Your task to perform on an android device: turn off location Image 0: 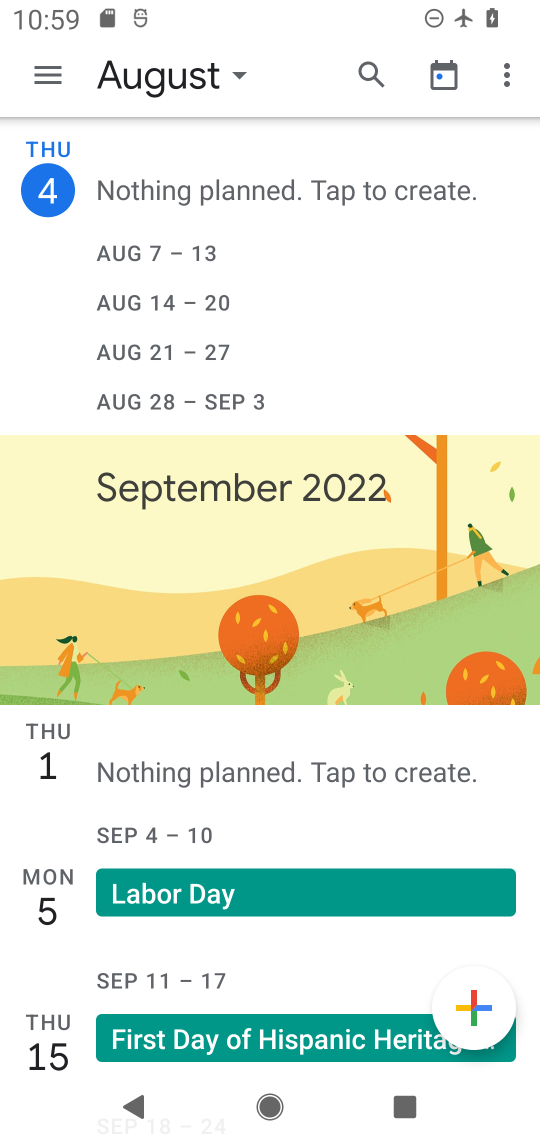
Step 0: press home button
Your task to perform on an android device: turn off location Image 1: 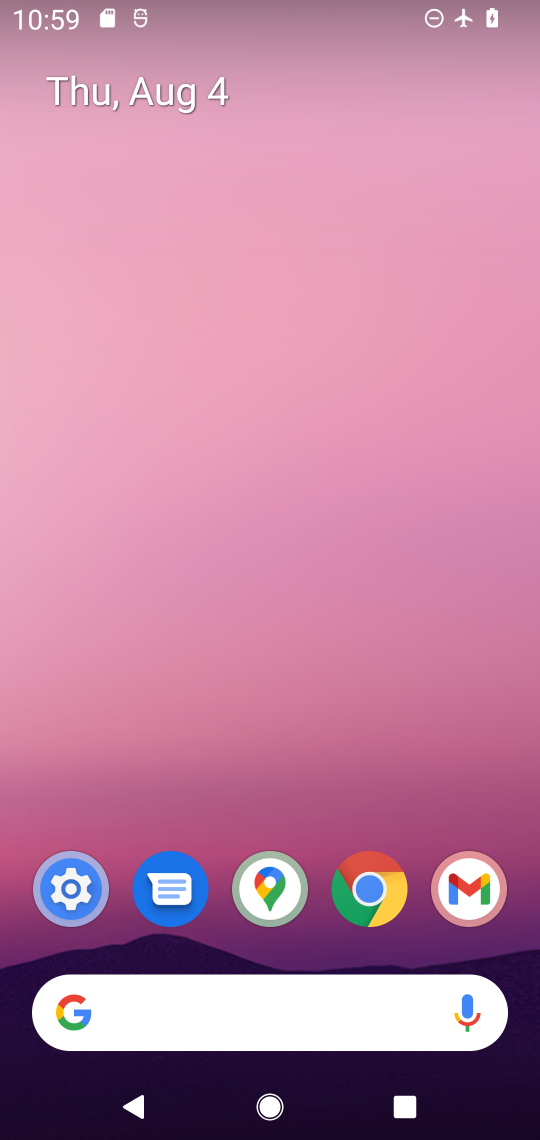
Step 1: drag from (325, 799) to (308, 224)
Your task to perform on an android device: turn off location Image 2: 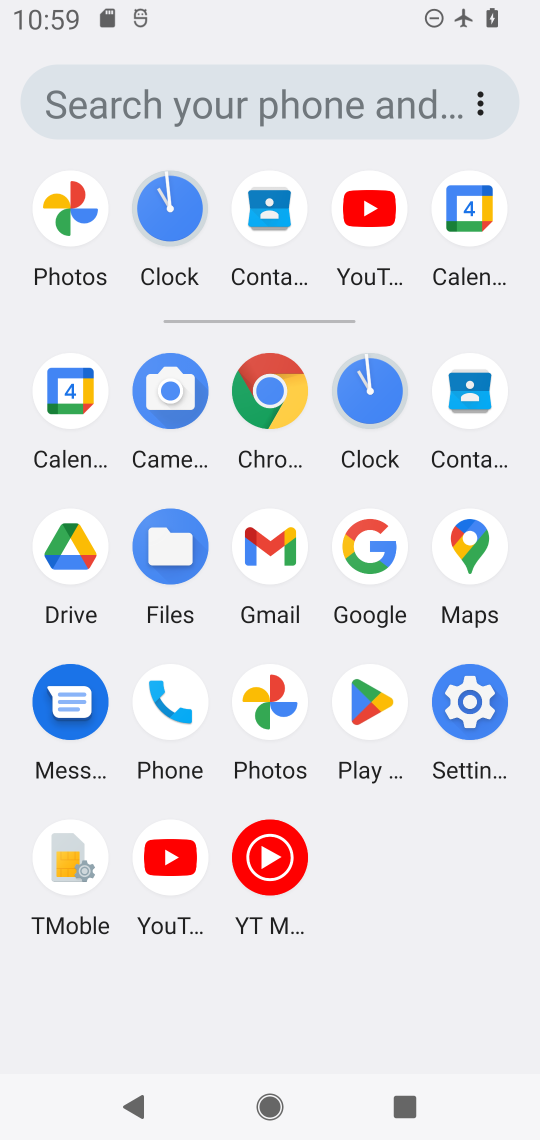
Step 2: click (474, 694)
Your task to perform on an android device: turn off location Image 3: 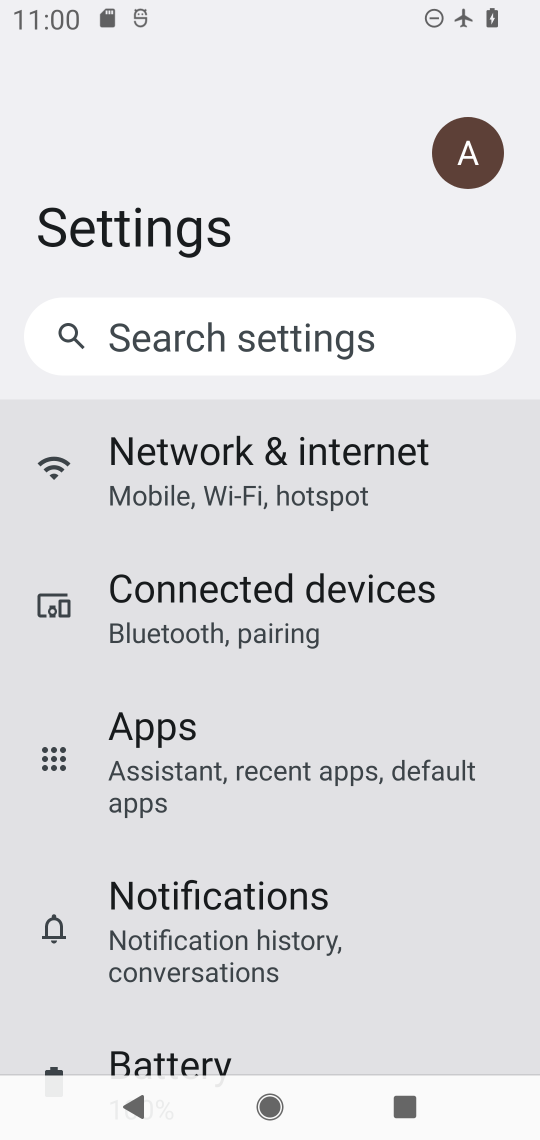
Step 3: drag from (431, 949) to (444, 717)
Your task to perform on an android device: turn off location Image 4: 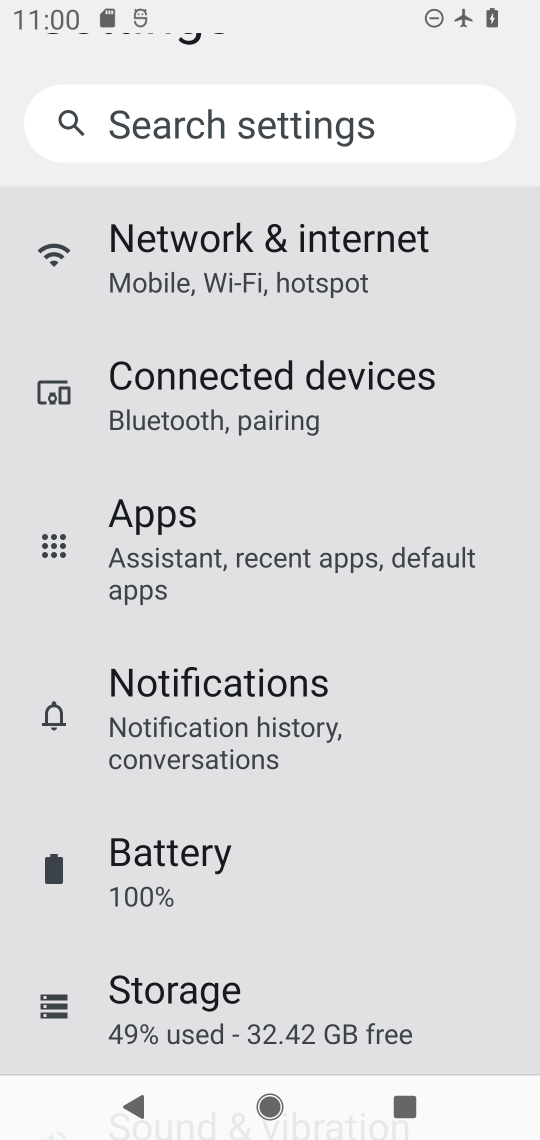
Step 4: drag from (409, 901) to (419, 657)
Your task to perform on an android device: turn off location Image 5: 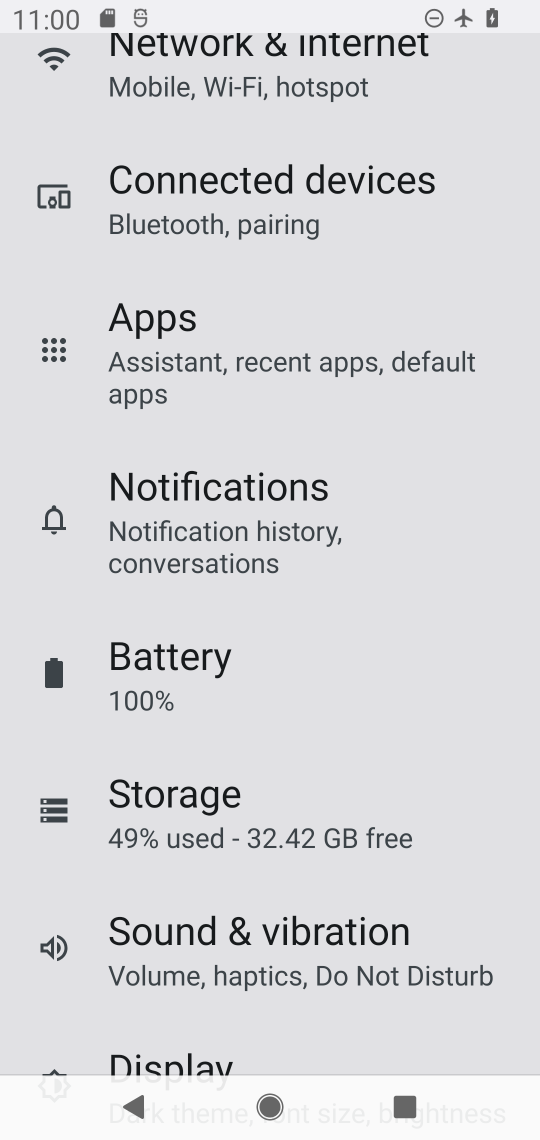
Step 5: drag from (462, 991) to (446, 753)
Your task to perform on an android device: turn off location Image 6: 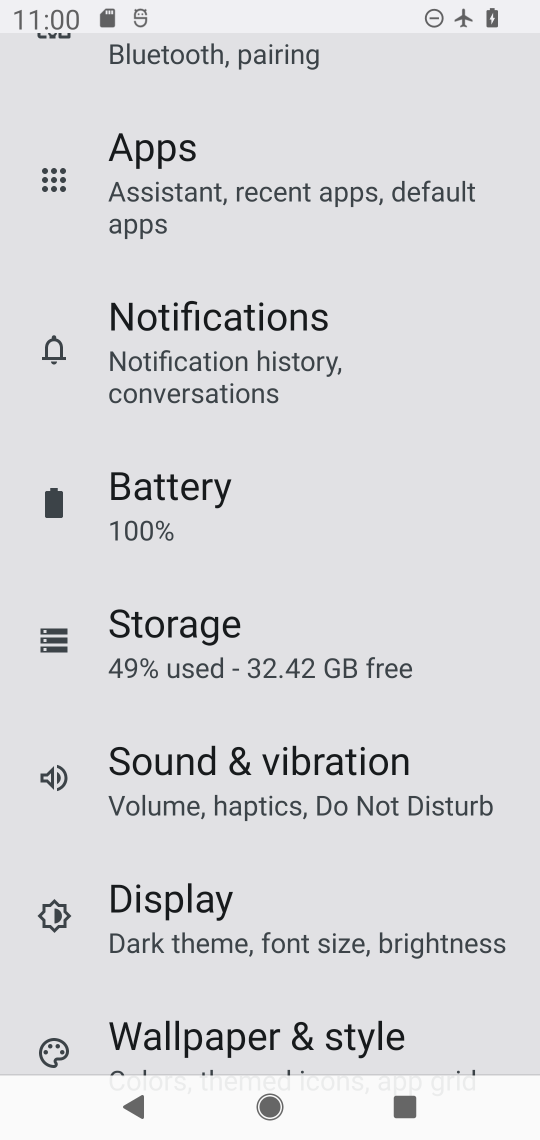
Step 6: drag from (425, 982) to (436, 752)
Your task to perform on an android device: turn off location Image 7: 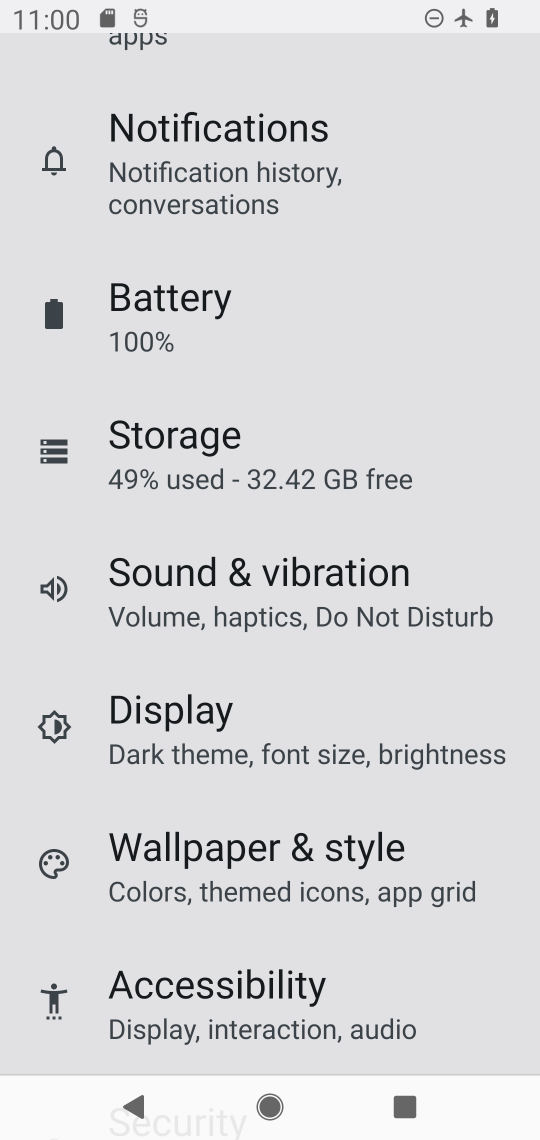
Step 7: drag from (439, 992) to (446, 770)
Your task to perform on an android device: turn off location Image 8: 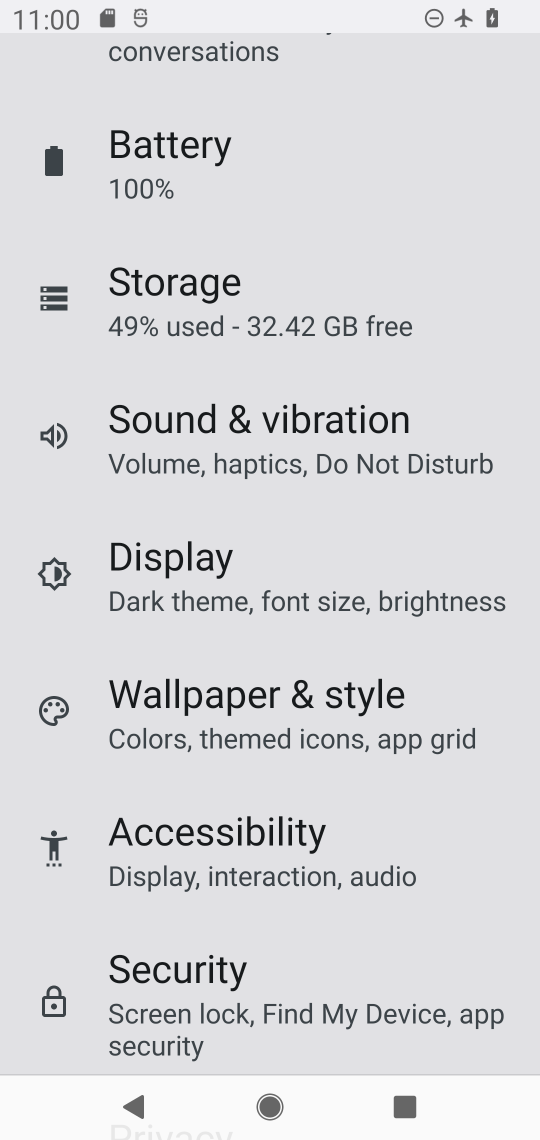
Step 8: drag from (445, 1013) to (451, 757)
Your task to perform on an android device: turn off location Image 9: 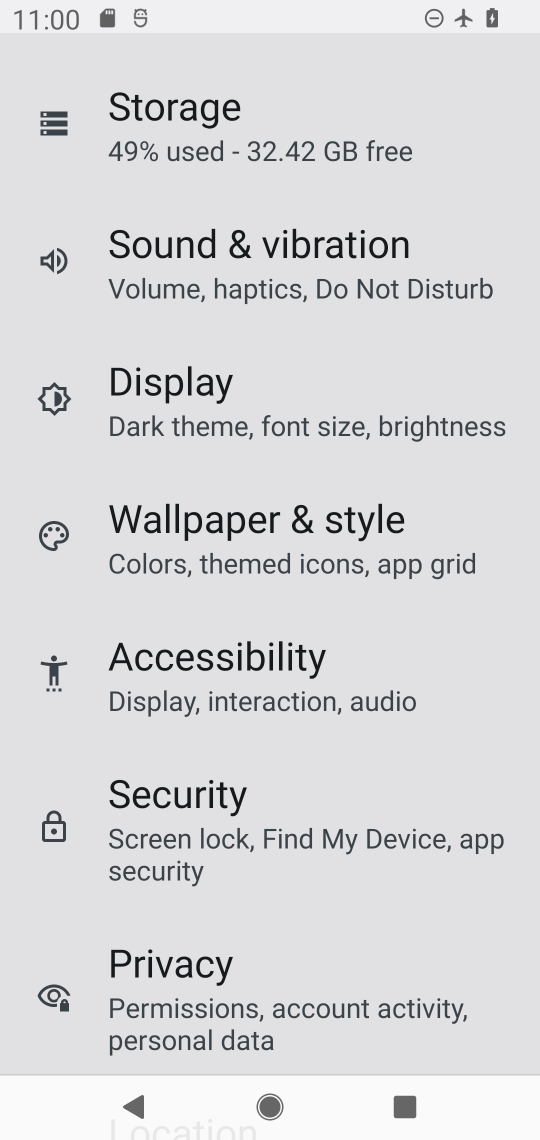
Step 9: drag from (432, 945) to (449, 722)
Your task to perform on an android device: turn off location Image 10: 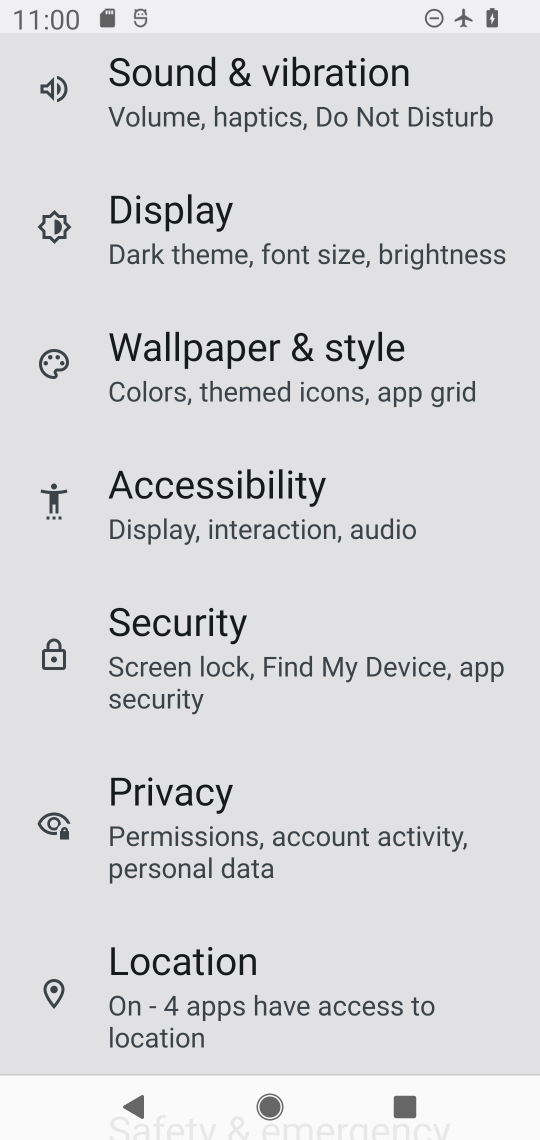
Step 10: drag from (449, 874) to (459, 530)
Your task to perform on an android device: turn off location Image 11: 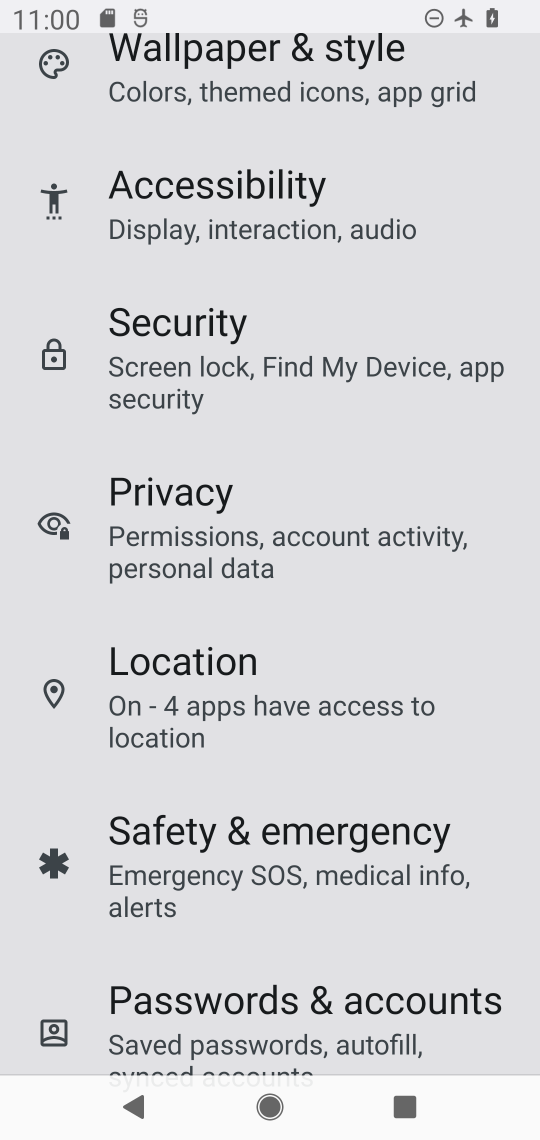
Step 11: drag from (438, 781) to (444, 541)
Your task to perform on an android device: turn off location Image 12: 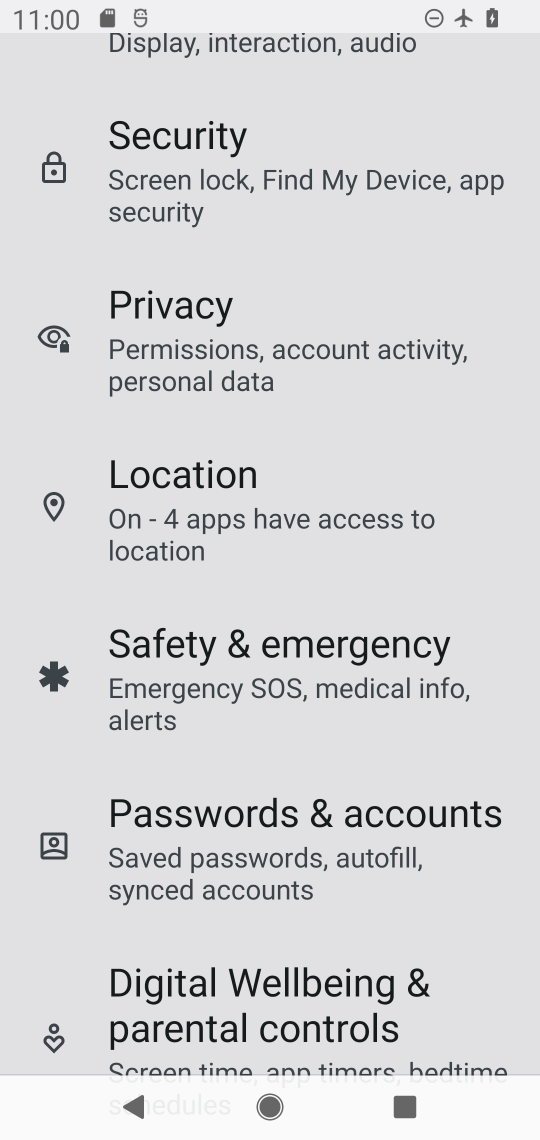
Step 12: click (346, 509)
Your task to perform on an android device: turn off location Image 13: 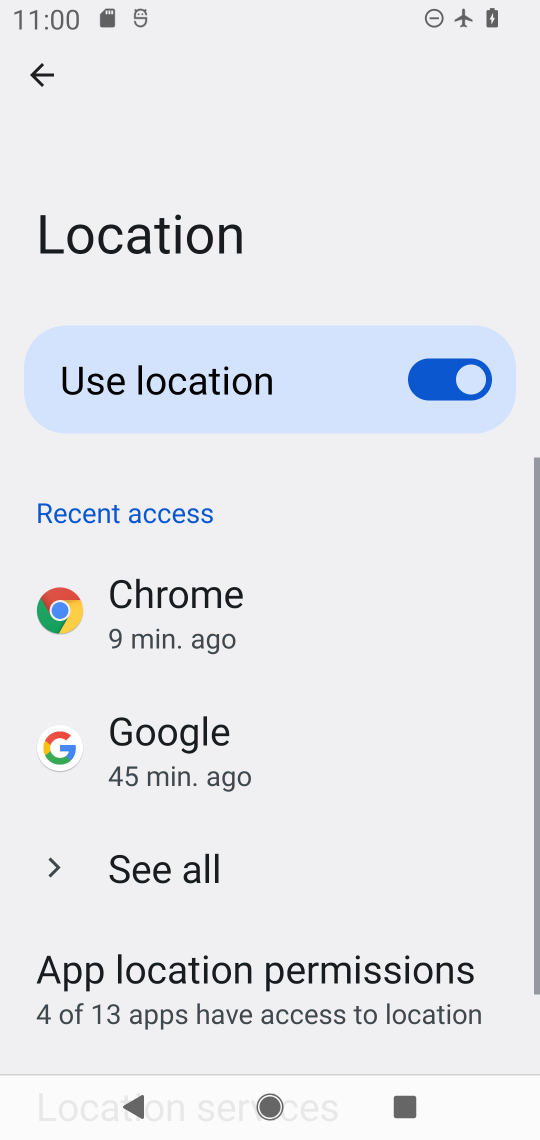
Step 13: drag from (362, 842) to (362, 612)
Your task to perform on an android device: turn off location Image 14: 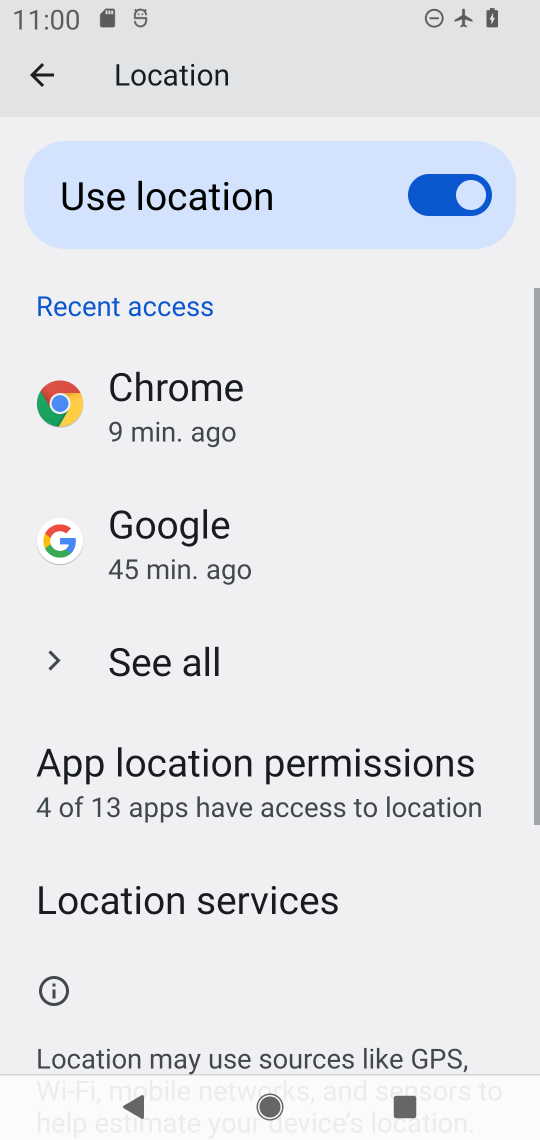
Step 14: drag from (419, 912) to (405, 574)
Your task to perform on an android device: turn off location Image 15: 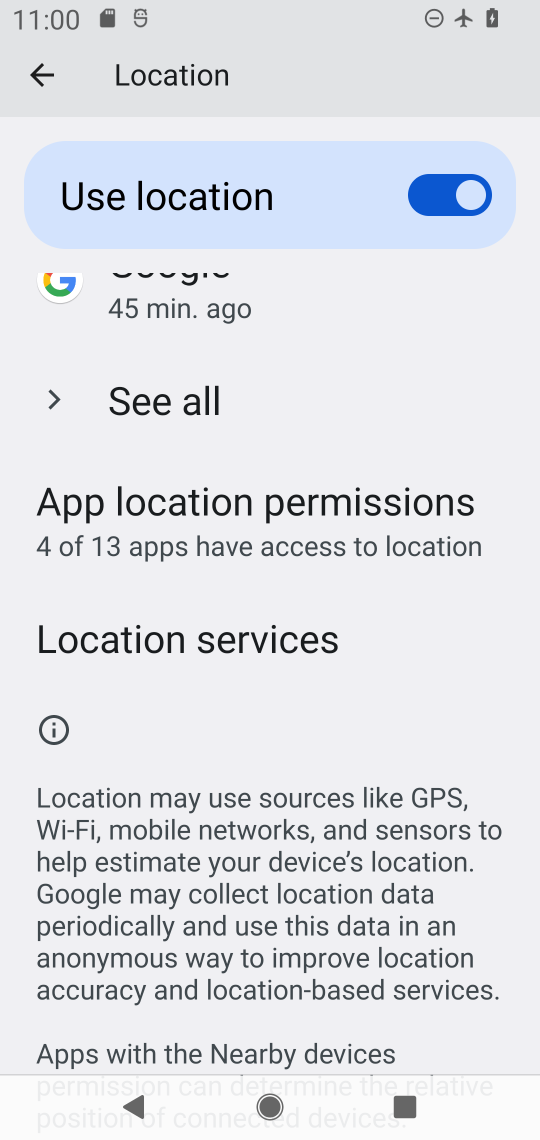
Step 15: drag from (405, 788) to (409, 528)
Your task to perform on an android device: turn off location Image 16: 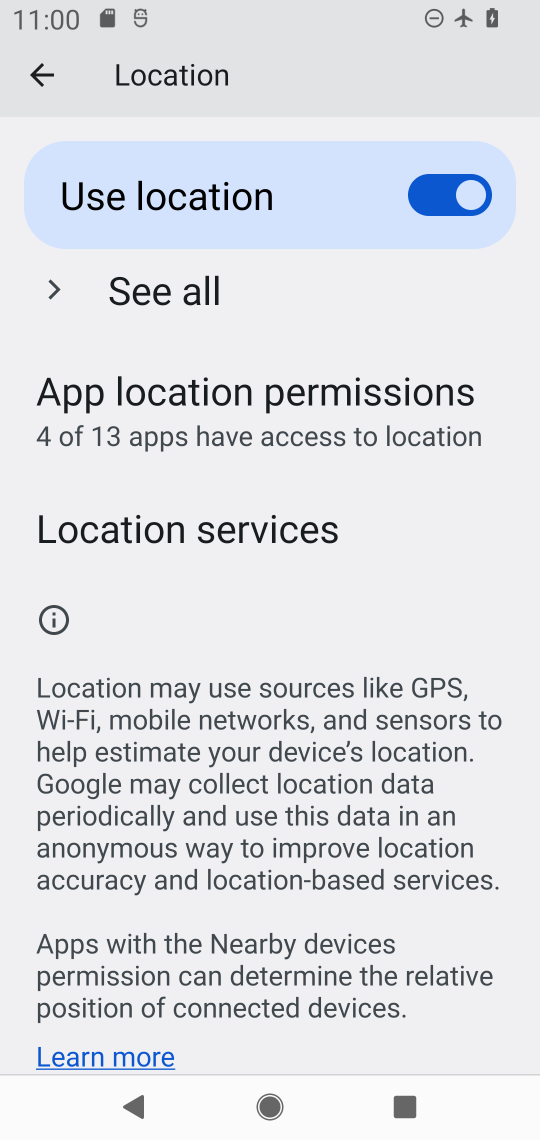
Step 16: click (459, 193)
Your task to perform on an android device: turn off location Image 17: 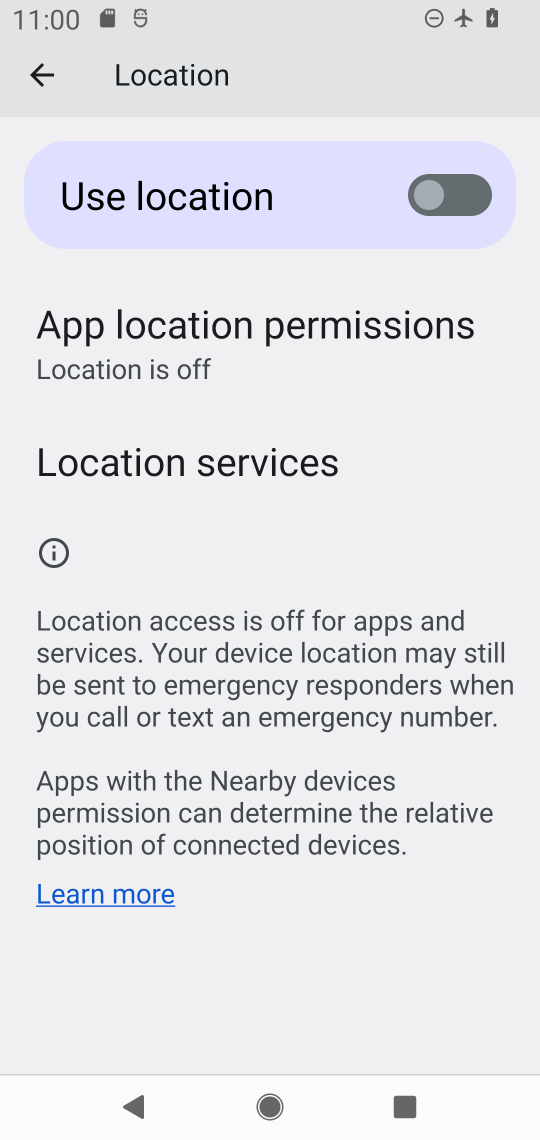
Step 17: task complete